Your task to perform on an android device: turn notification dots on Image 0: 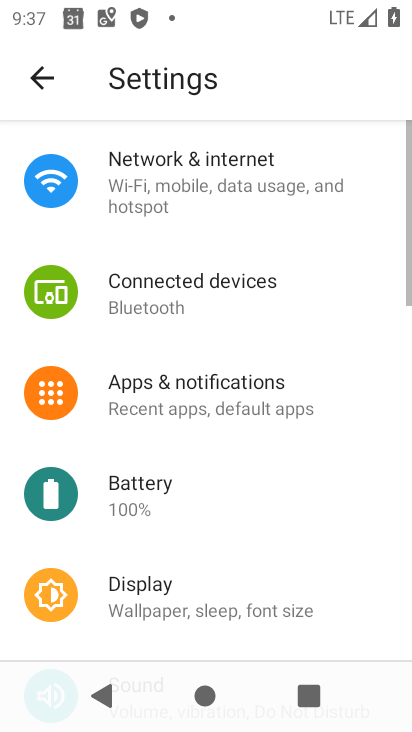
Step 0: press home button
Your task to perform on an android device: turn notification dots on Image 1: 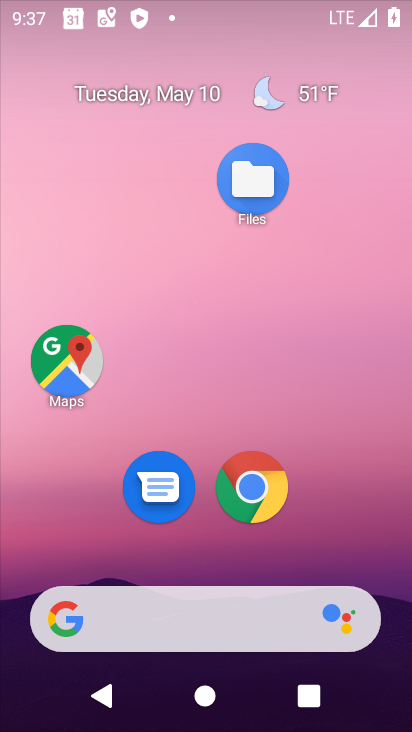
Step 1: drag from (212, 578) to (217, 56)
Your task to perform on an android device: turn notification dots on Image 2: 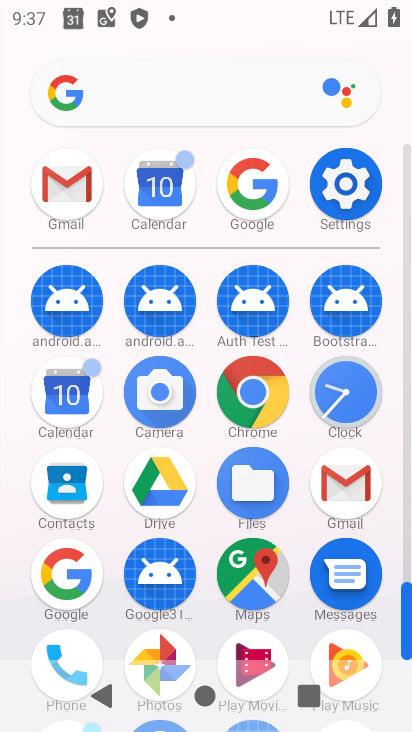
Step 2: click (346, 193)
Your task to perform on an android device: turn notification dots on Image 3: 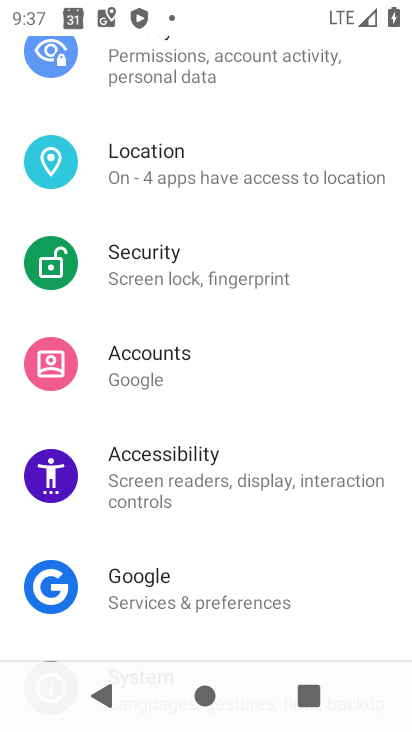
Step 3: drag from (228, 329) to (230, 614)
Your task to perform on an android device: turn notification dots on Image 4: 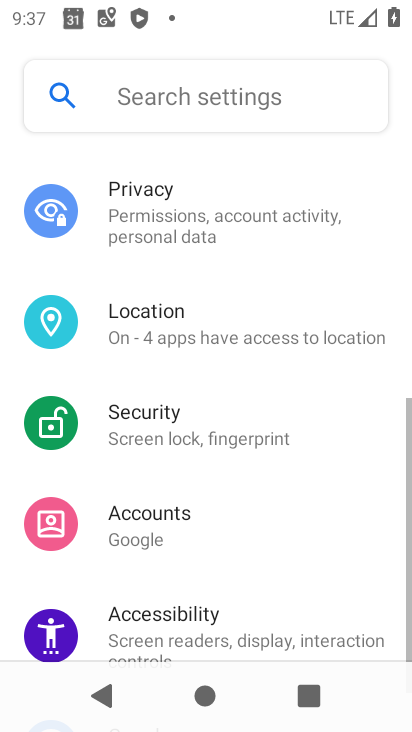
Step 4: drag from (239, 232) to (206, 708)
Your task to perform on an android device: turn notification dots on Image 5: 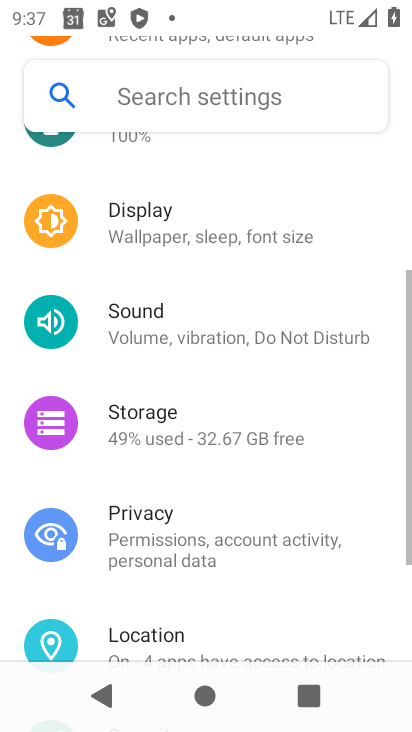
Step 5: drag from (213, 223) to (196, 717)
Your task to perform on an android device: turn notification dots on Image 6: 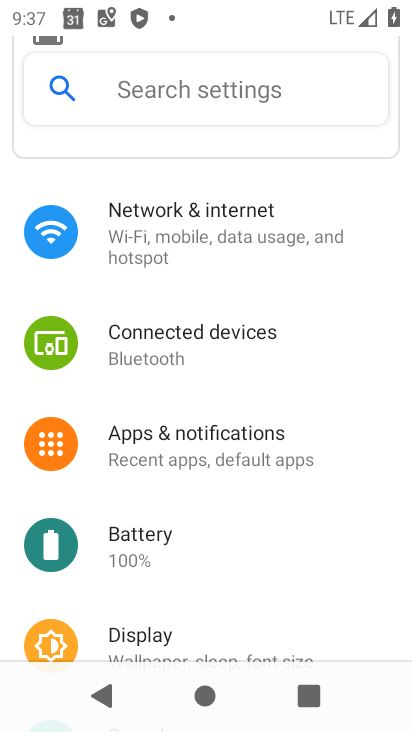
Step 6: click (209, 467)
Your task to perform on an android device: turn notification dots on Image 7: 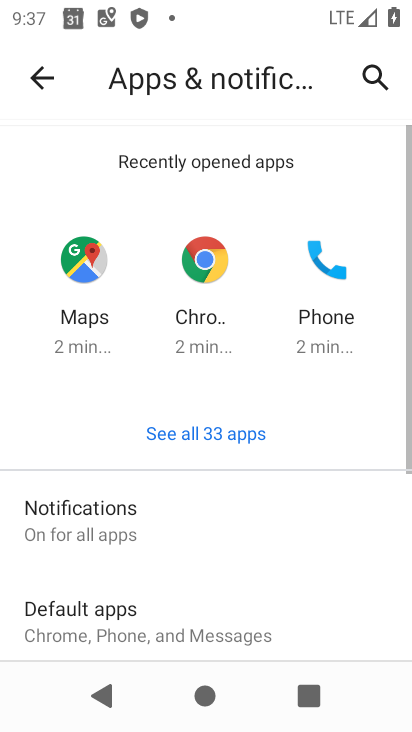
Step 7: click (146, 528)
Your task to perform on an android device: turn notification dots on Image 8: 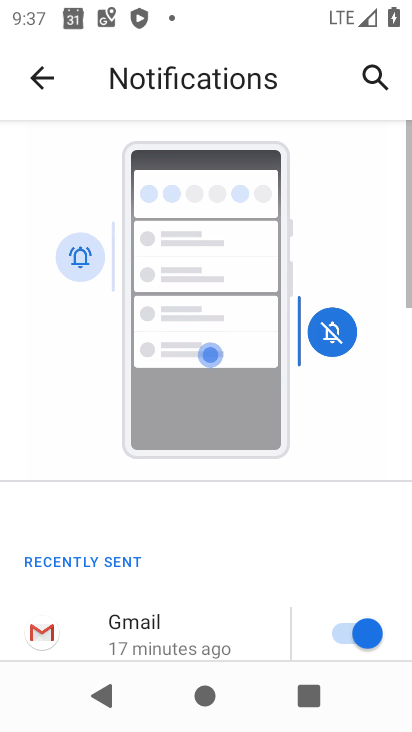
Step 8: drag from (231, 591) to (230, 0)
Your task to perform on an android device: turn notification dots on Image 9: 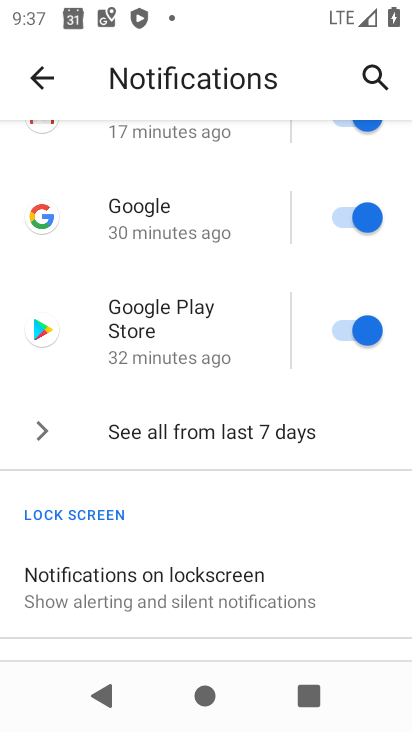
Step 9: drag from (206, 558) to (247, 82)
Your task to perform on an android device: turn notification dots on Image 10: 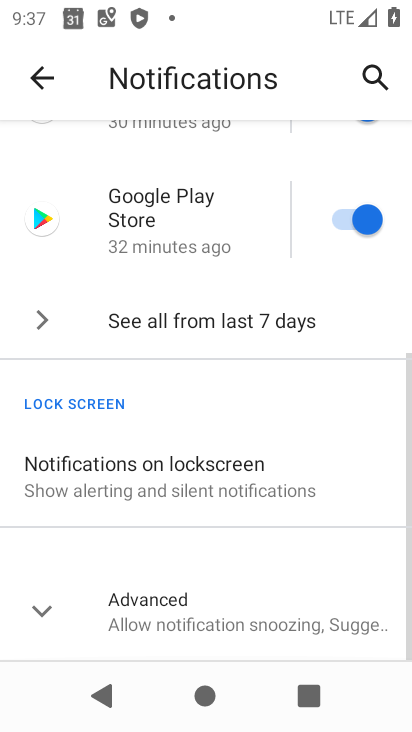
Step 10: click (119, 624)
Your task to perform on an android device: turn notification dots on Image 11: 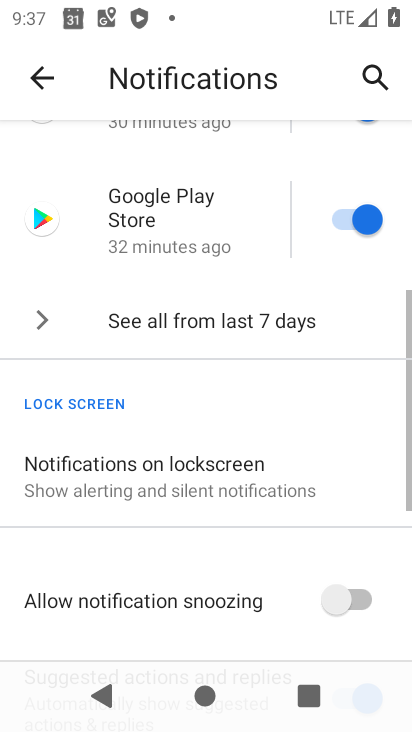
Step 11: task complete